Your task to perform on an android device: What's the weather going to be tomorrow? Image 0: 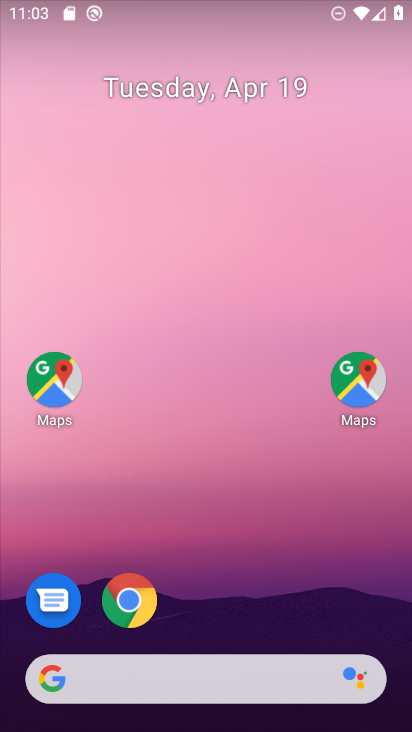
Step 0: drag from (275, 652) to (345, 16)
Your task to perform on an android device: What's the weather going to be tomorrow? Image 1: 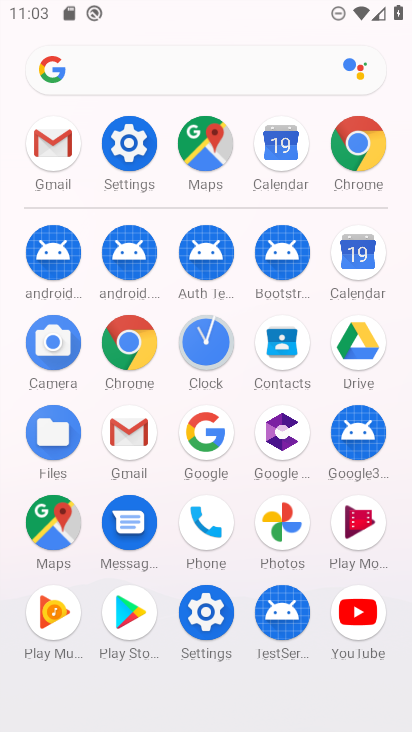
Step 1: click (131, 338)
Your task to perform on an android device: What's the weather going to be tomorrow? Image 2: 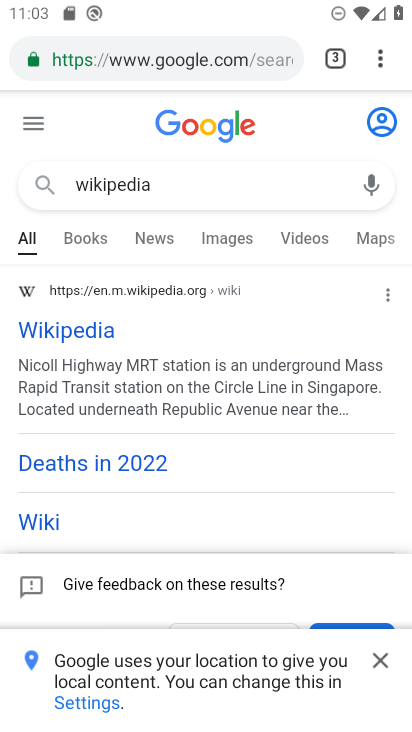
Step 2: click (204, 72)
Your task to perform on an android device: What's the weather going to be tomorrow? Image 3: 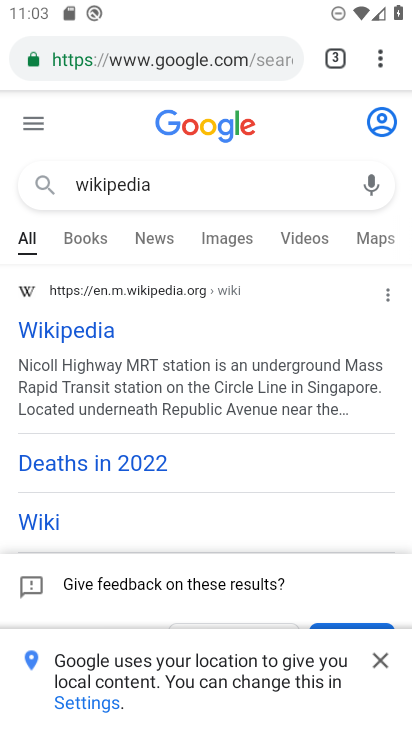
Step 3: click (204, 72)
Your task to perform on an android device: What's the weather going to be tomorrow? Image 4: 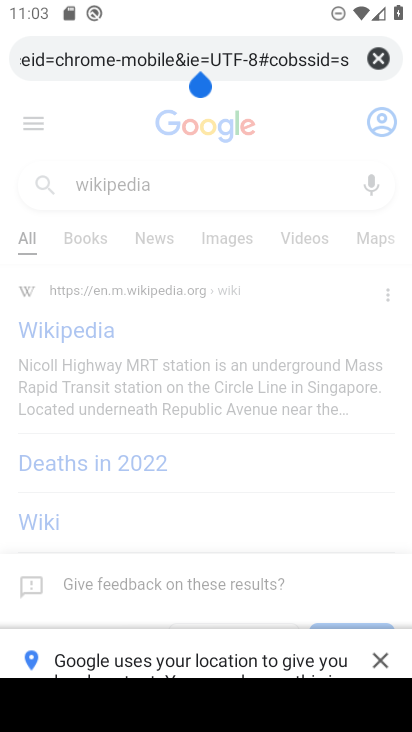
Step 4: click (375, 60)
Your task to perform on an android device: What's the weather going to be tomorrow? Image 5: 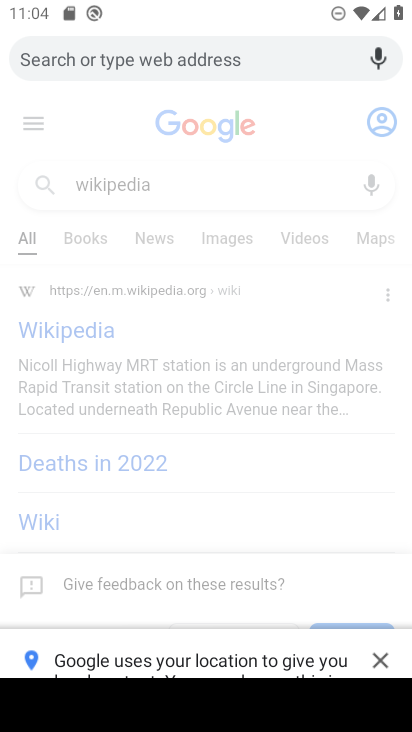
Step 5: type "weather tomorrow"
Your task to perform on an android device: What's the weather going to be tomorrow? Image 6: 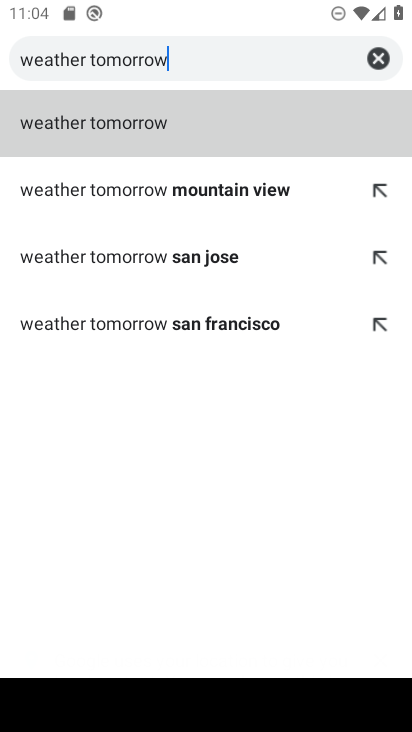
Step 6: click (200, 139)
Your task to perform on an android device: What's the weather going to be tomorrow? Image 7: 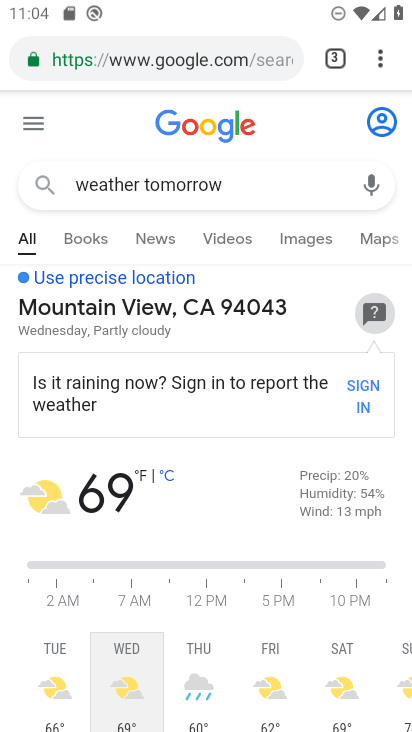
Step 7: task complete